Your task to perform on an android device: Open the Play Movies app and select the watchlist tab. Image 0: 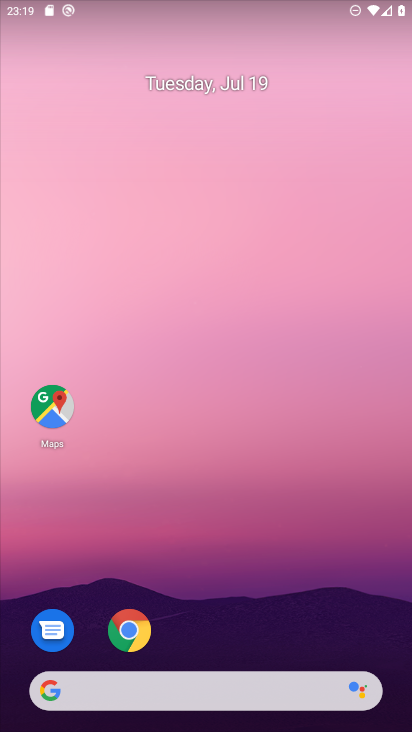
Step 0: drag from (188, 631) to (214, 160)
Your task to perform on an android device: Open the Play Movies app and select the watchlist tab. Image 1: 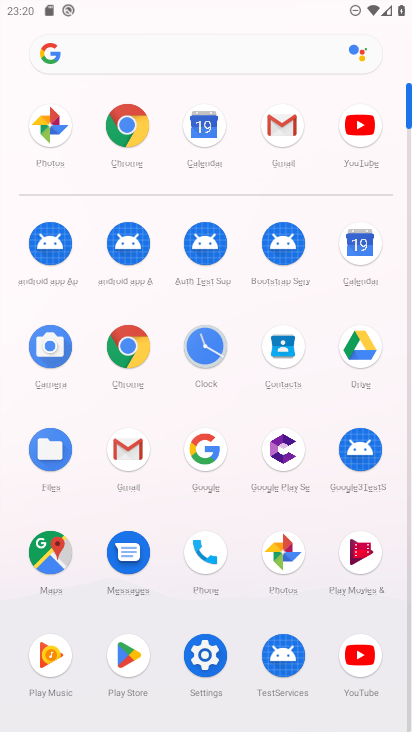
Step 1: click (352, 571)
Your task to perform on an android device: Open the Play Movies app and select the watchlist tab. Image 2: 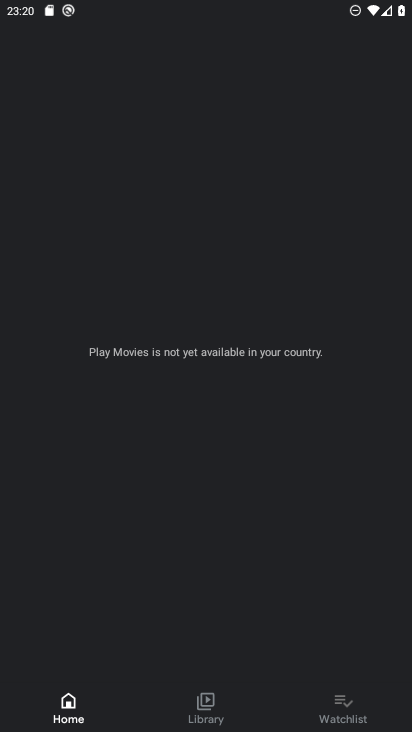
Step 2: click (348, 695)
Your task to perform on an android device: Open the Play Movies app and select the watchlist tab. Image 3: 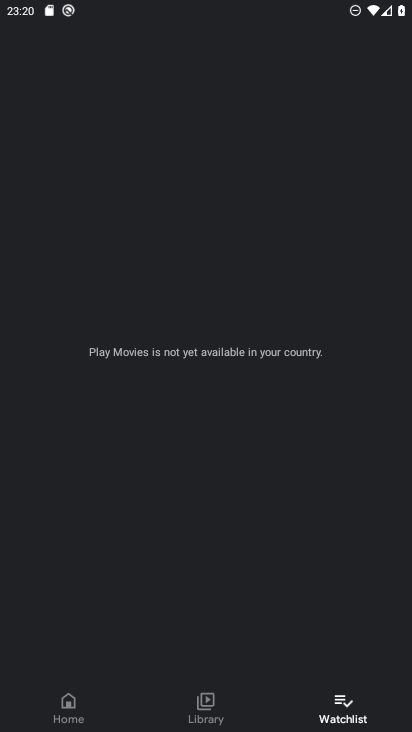
Step 3: task complete